Your task to perform on an android device: open the mobile data screen to see how much data has been used Image 0: 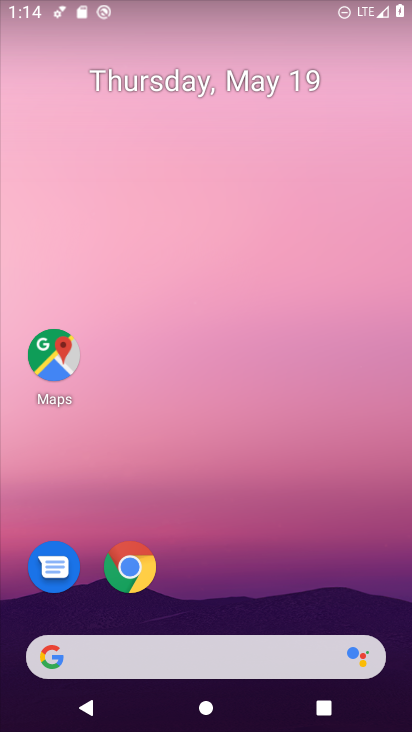
Step 0: drag from (228, 542) to (212, 101)
Your task to perform on an android device: open the mobile data screen to see how much data has been used Image 1: 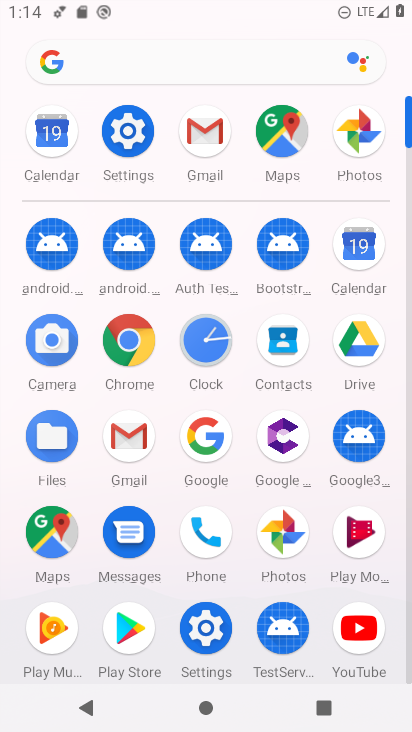
Step 1: click (143, 130)
Your task to perform on an android device: open the mobile data screen to see how much data has been used Image 2: 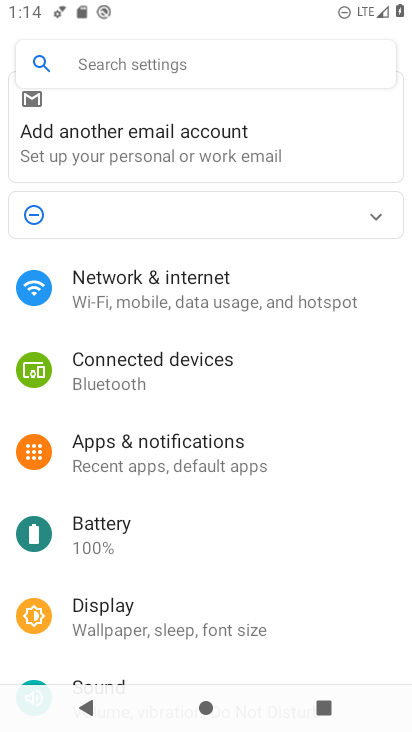
Step 2: click (185, 285)
Your task to perform on an android device: open the mobile data screen to see how much data has been used Image 3: 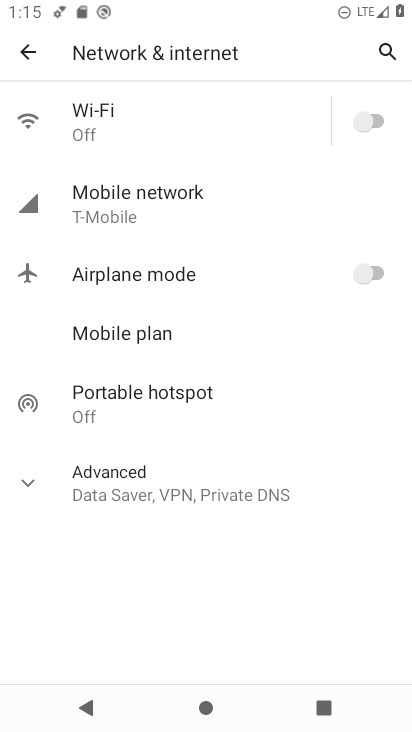
Step 3: click (203, 203)
Your task to perform on an android device: open the mobile data screen to see how much data has been used Image 4: 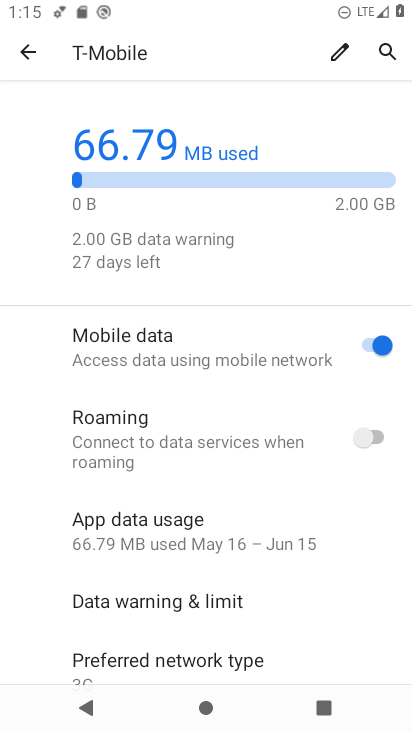
Step 4: task complete